Your task to perform on an android device: change your default location settings in chrome Image 0: 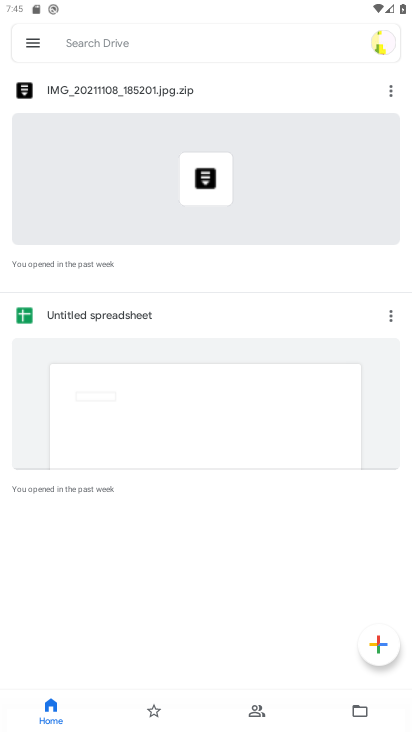
Step 0: press home button
Your task to perform on an android device: change your default location settings in chrome Image 1: 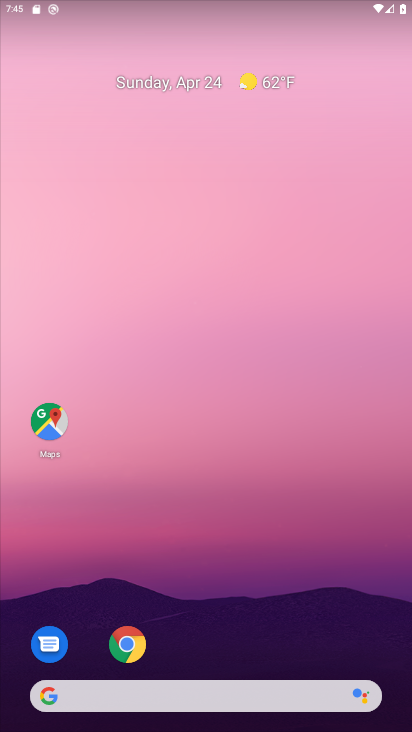
Step 1: click (126, 637)
Your task to perform on an android device: change your default location settings in chrome Image 2: 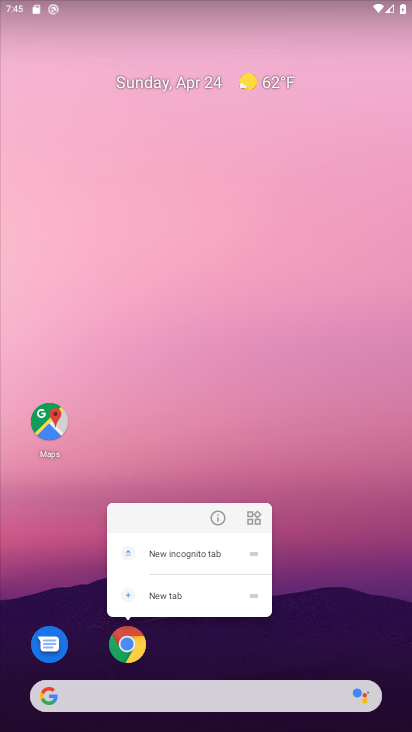
Step 2: click (333, 557)
Your task to perform on an android device: change your default location settings in chrome Image 3: 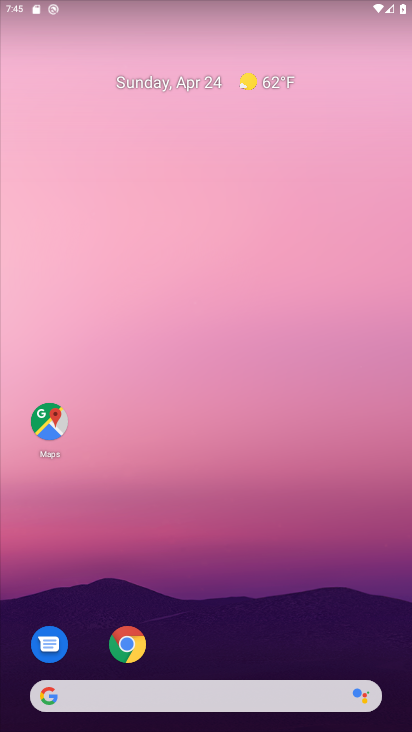
Step 3: drag from (309, 622) to (305, 39)
Your task to perform on an android device: change your default location settings in chrome Image 4: 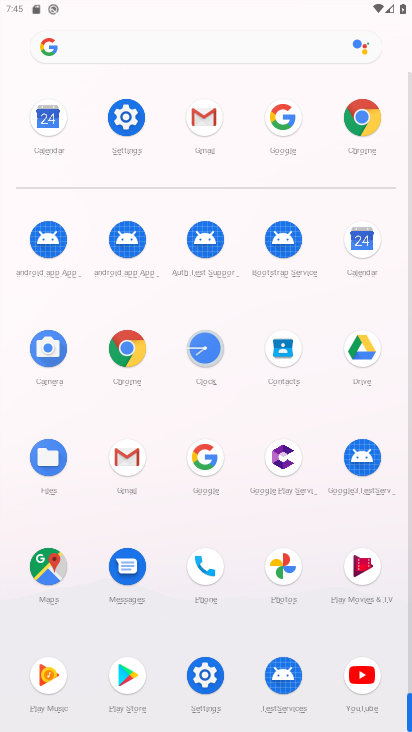
Step 4: click (124, 345)
Your task to perform on an android device: change your default location settings in chrome Image 5: 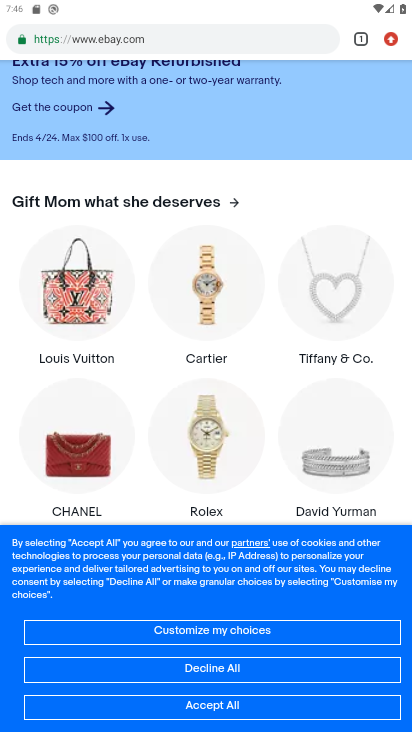
Step 5: click (393, 34)
Your task to perform on an android device: change your default location settings in chrome Image 6: 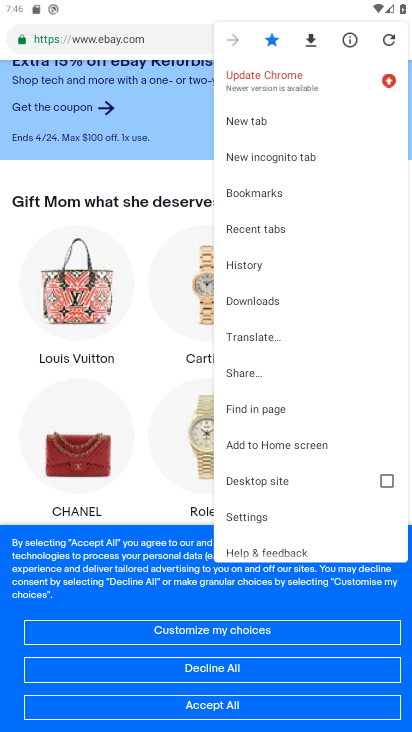
Step 6: click (274, 517)
Your task to perform on an android device: change your default location settings in chrome Image 7: 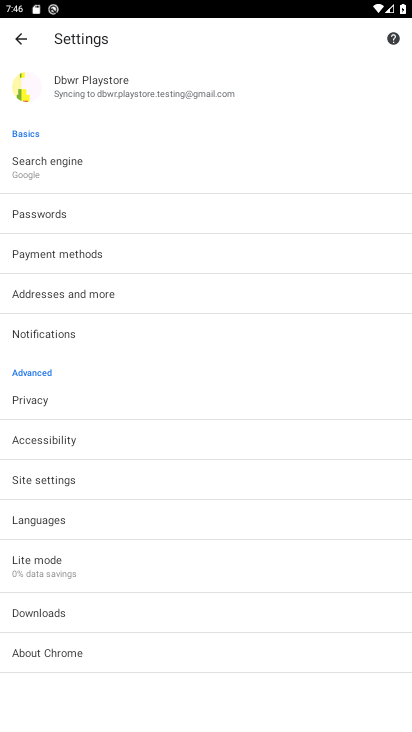
Step 7: click (83, 476)
Your task to perform on an android device: change your default location settings in chrome Image 8: 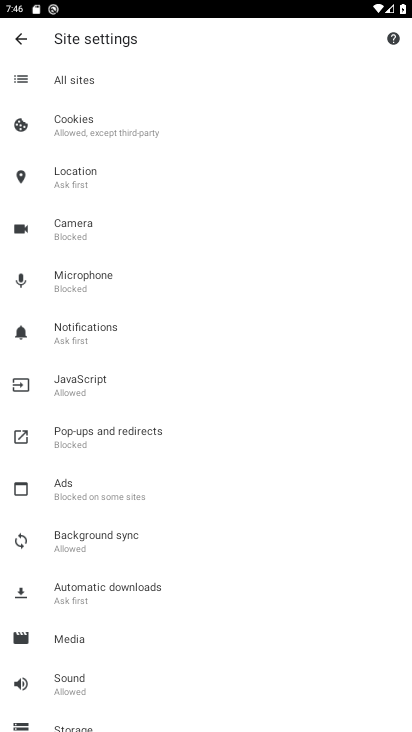
Step 8: click (106, 173)
Your task to perform on an android device: change your default location settings in chrome Image 9: 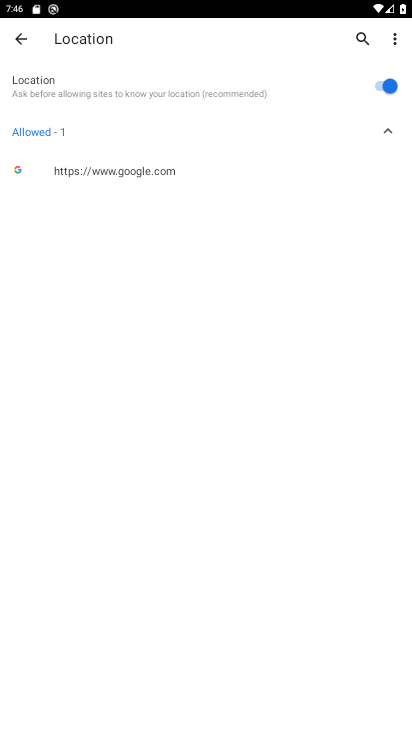
Step 9: click (381, 84)
Your task to perform on an android device: change your default location settings in chrome Image 10: 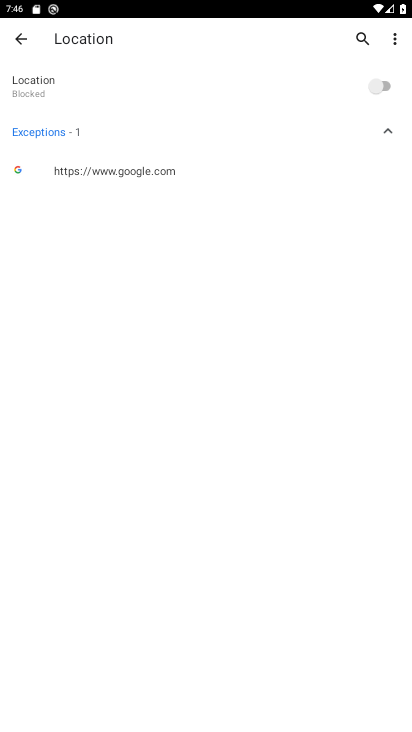
Step 10: task complete